Your task to perform on an android device: Toggle the flashlight Image 0: 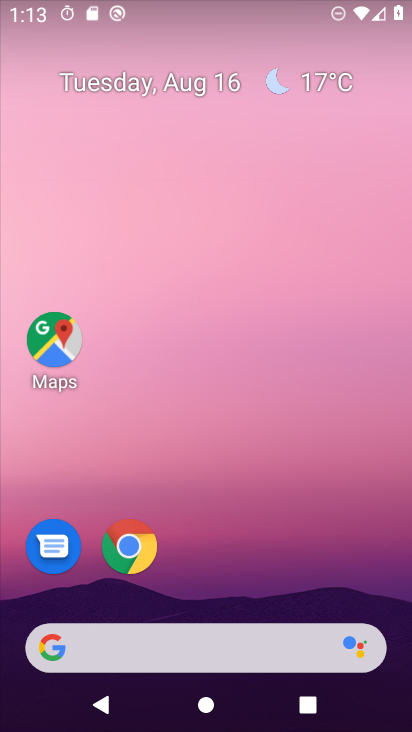
Step 0: drag from (247, 611) to (203, 80)
Your task to perform on an android device: Toggle the flashlight Image 1: 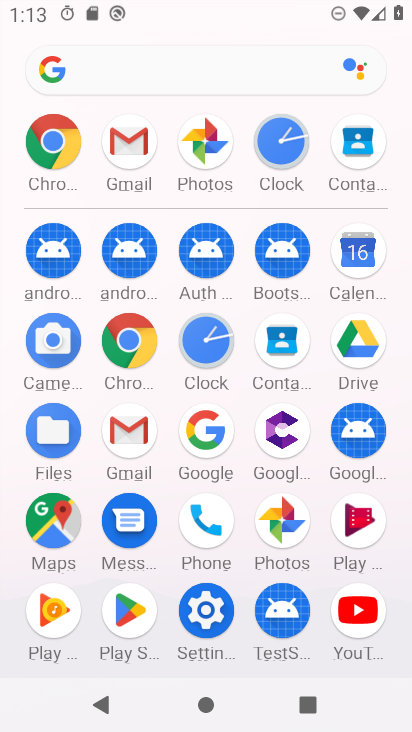
Step 1: click (209, 612)
Your task to perform on an android device: Toggle the flashlight Image 2: 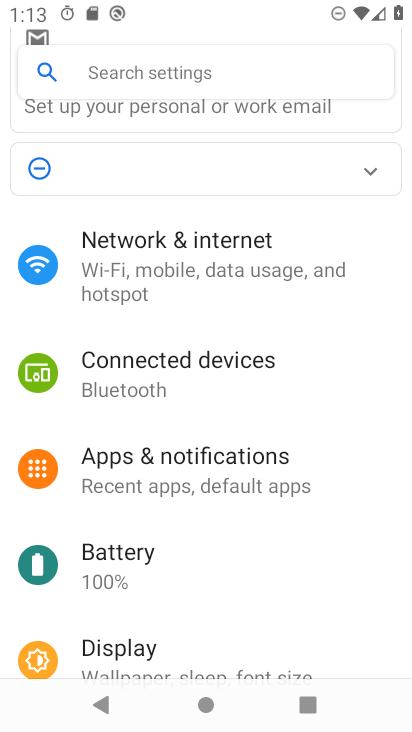
Step 2: task complete